Your task to perform on an android device: Open ESPN.com Image 0: 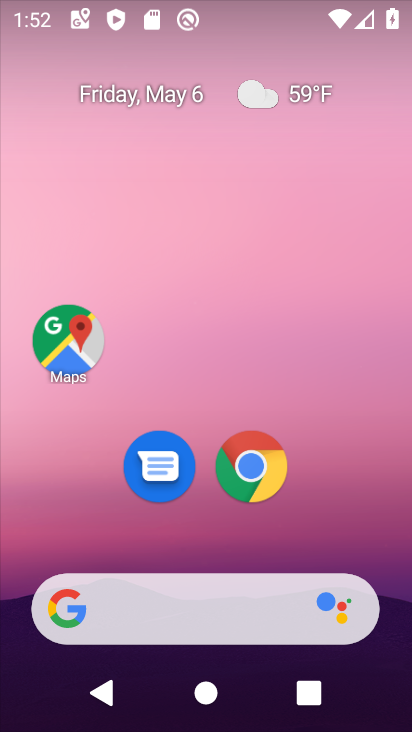
Step 0: drag from (214, 546) to (218, 79)
Your task to perform on an android device: Open ESPN.com Image 1: 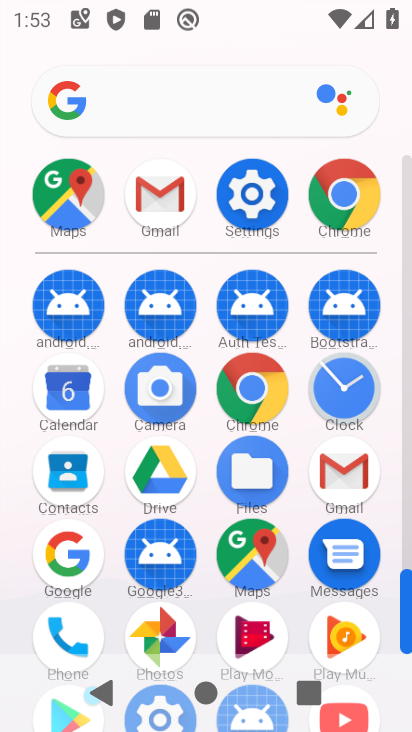
Step 1: click (252, 380)
Your task to perform on an android device: Open ESPN.com Image 2: 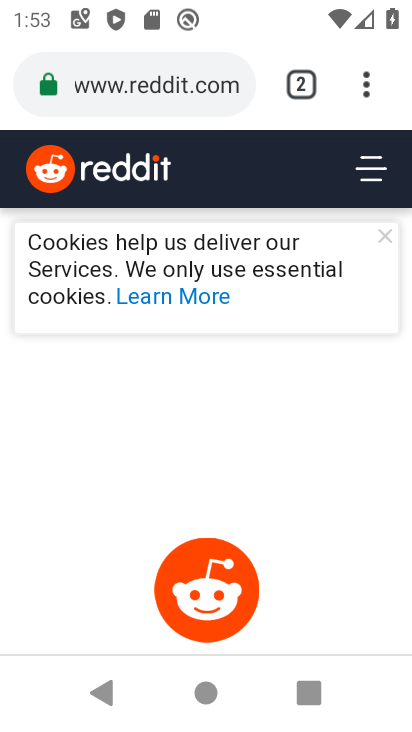
Step 2: click (292, 78)
Your task to perform on an android device: Open ESPN.com Image 3: 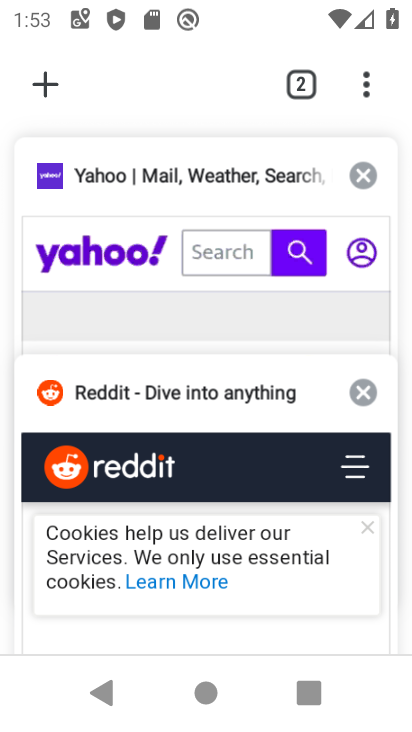
Step 3: click (369, 170)
Your task to perform on an android device: Open ESPN.com Image 4: 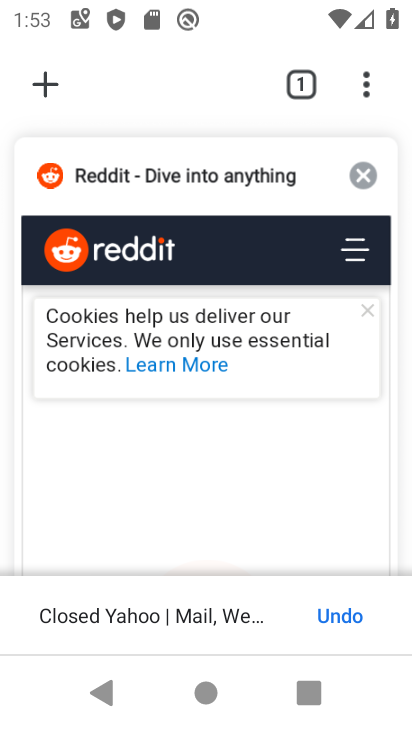
Step 4: click (365, 171)
Your task to perform on an android device: Open ESPN.com Image 5: 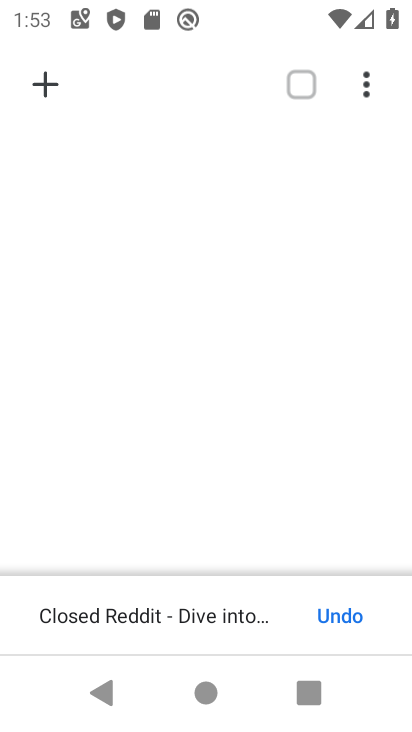
Step 5: click (43, 77)
Your task to perform on an android device: Open ESPN.com Image 6: 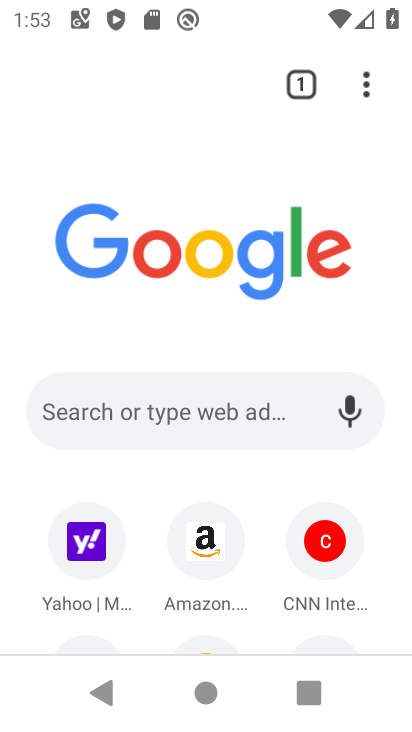
Step 6: drag from (269, 571) to (276, 175)
Your task to perform on an android device: Open ESPN.com Image 7: 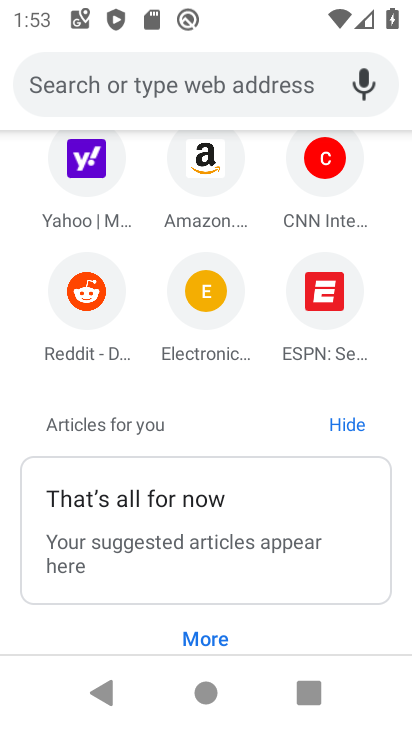
Step 7: click (317, 296)
Your task to perform on an android device: Open ESPN.com Image 8: 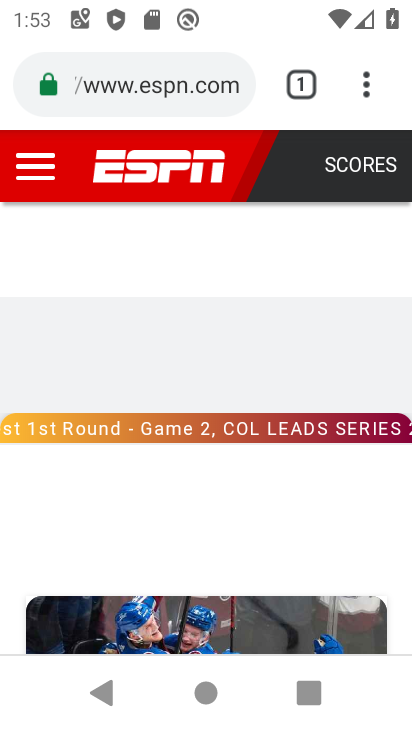
Step 8: task complete